Your task to perform on an android device: turn on bluetooth scan Image 0: 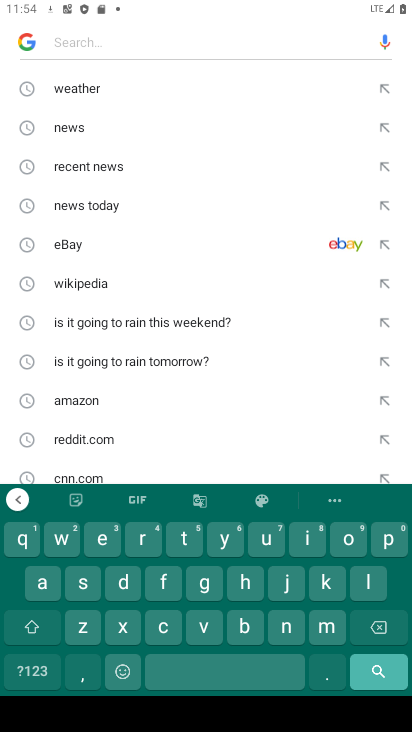
Step 0: press home button
Your task to perform on an android device: turn on bluetooth scan Image 1: 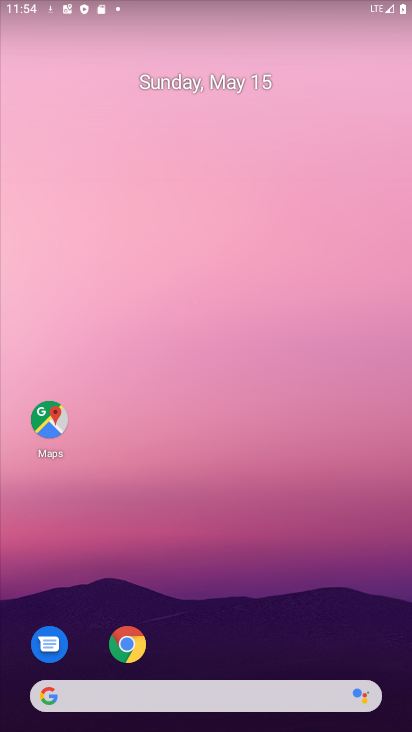
Step 1: drag from (207, 722) to (407, 228)
Your task to perform on an android device: turn on bluetooth scan Image 2: 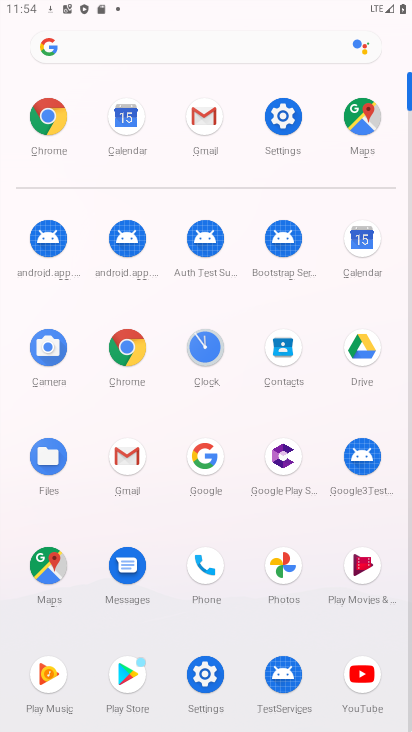
Step 2: click (291, 133)
Your task to perform on an android device: turn on bluetooth scan Image 3: 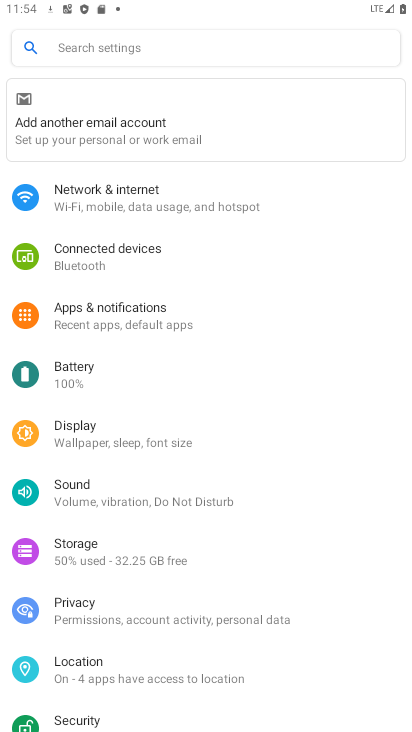
Step 3: click (112, 46)
Your task to perform on an android device: turn on bluetooth scan Image 4: 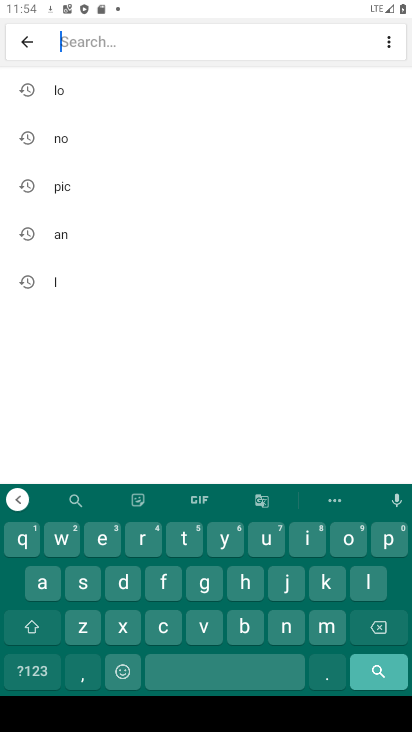
Step 4: click (79, 101)
Your task to perform on an android device: turn on bluetooth scan Image 5: 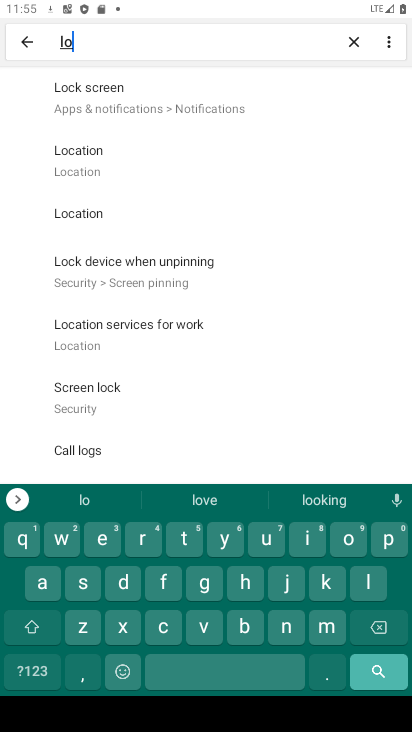
Step 5: click (109, 166)
Your task to perform on an android device: turn on bluetooth scan Image 6: 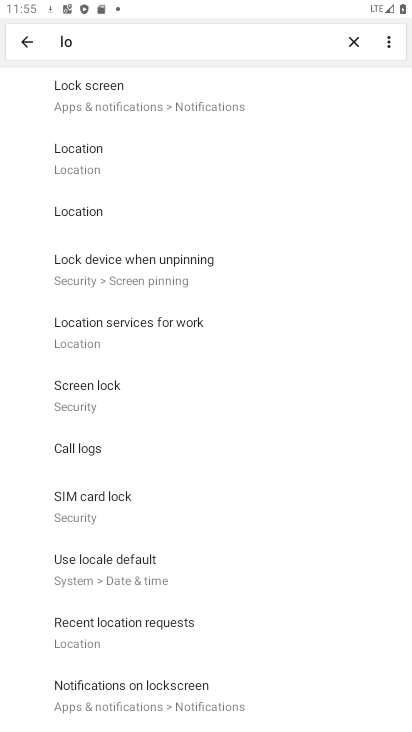
Step 6: click (137, 148)
Your task to perform on an android device: turn on bluetooth scan Image 7: 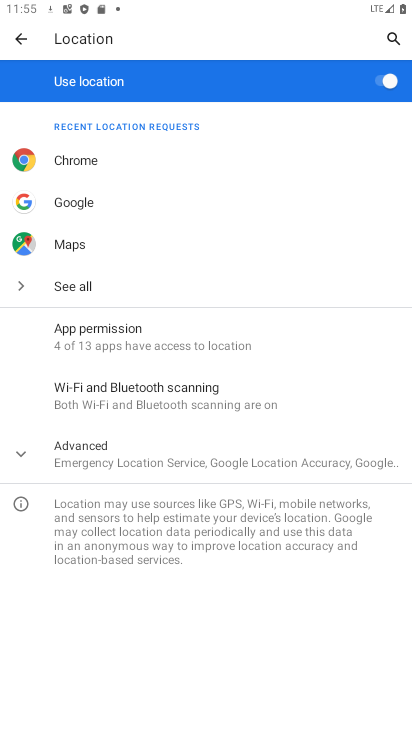
Step 7: click (114, 396)
Your task to perform on an android device: turn on bluetooth scan Image 8: 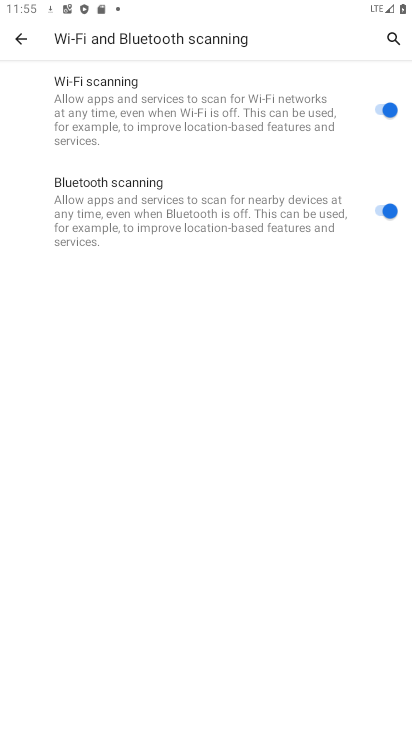
Step 8: click (386, 221)
Your task to perform on an android device: turn on bluetooth scan Image 9: 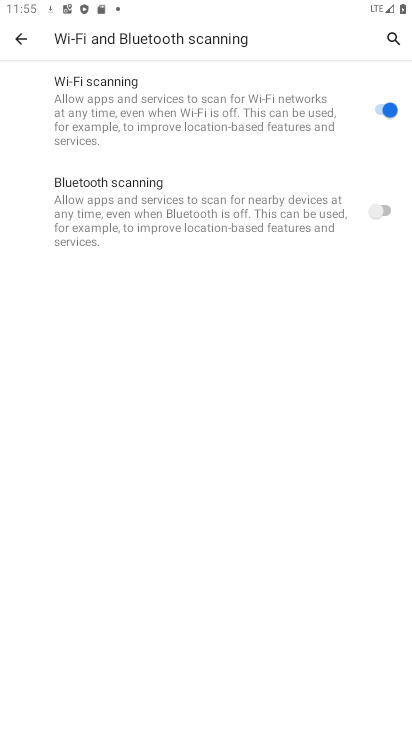
Step 9: click (380, 224)
Your task to perform on an android device: turn on bluetooth scan Image 10: 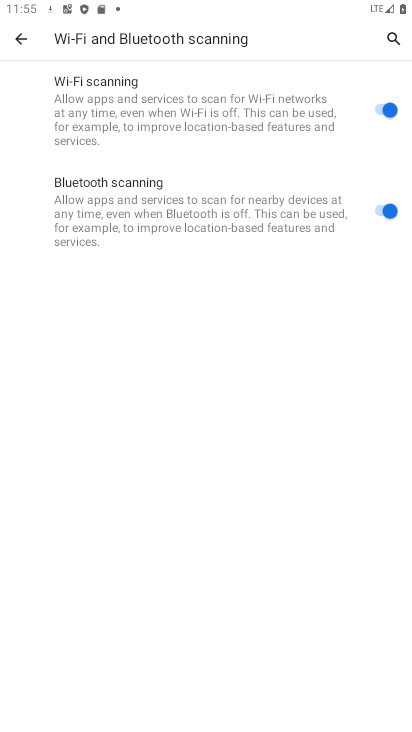
Step 10: task complete